Your task to perform on an android device: turn notification dots off Image 0: 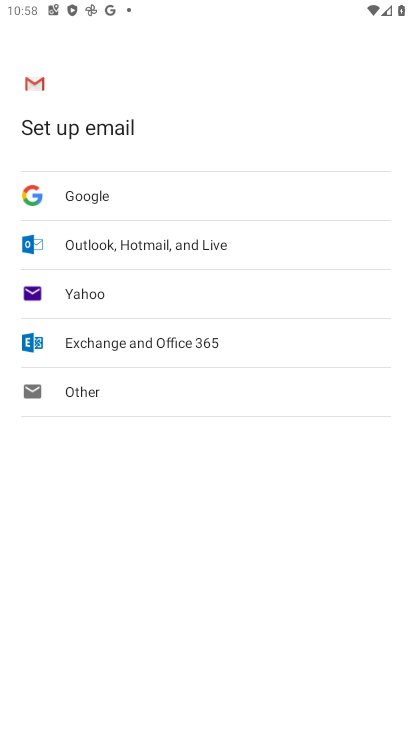
Step 0: press home button
Your task to perform on an android device: turn notification dots off Image 1: 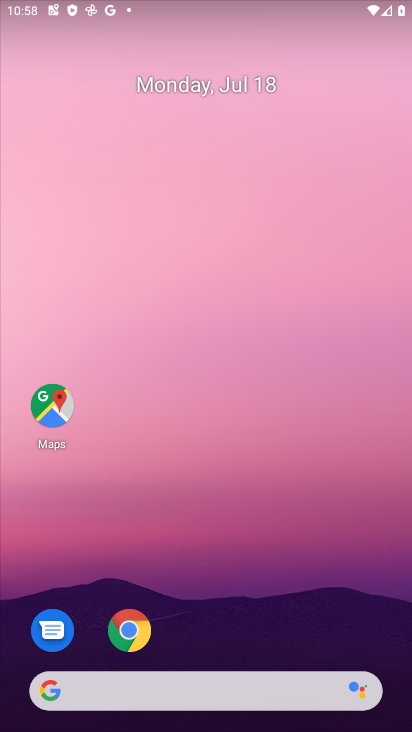
Step 1: drag from (389, 668) to (225, 137)
Your task to perform on an android device: turn notification dots off Image 2: 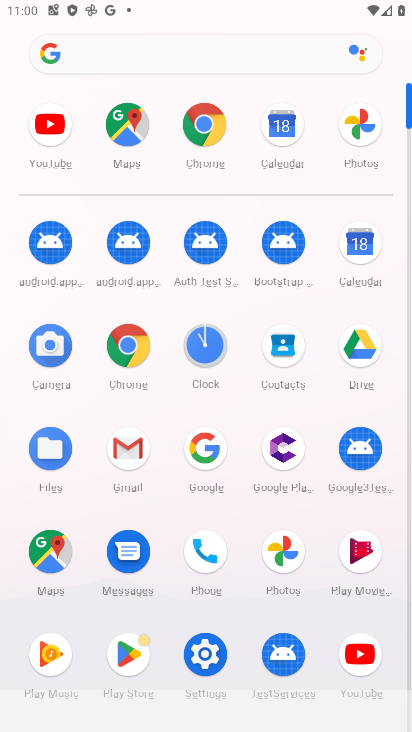
Step 2: click (185, 646)
Your task to perform on an android device: turn notification dots off Image 3: 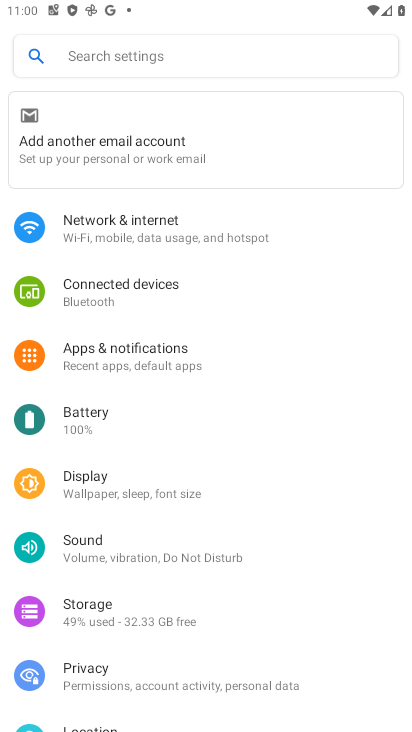
Step 3: click (171, 351)
Your task to perform on an android device: turn notification dots off Image 4: 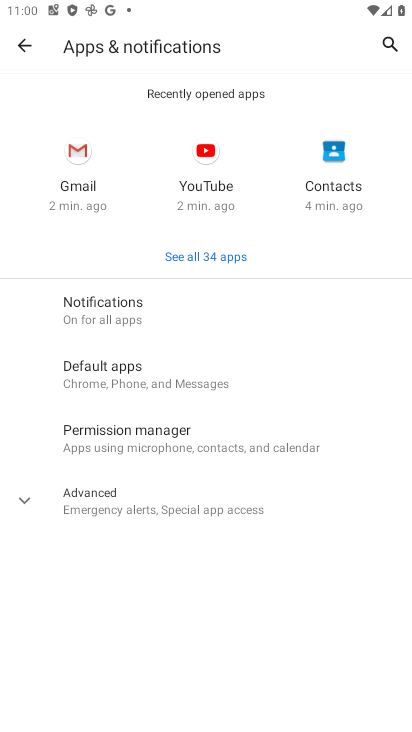
Step 4: click (162, 301)
Your task to perform on an android device: turn notification dots off Image 5: 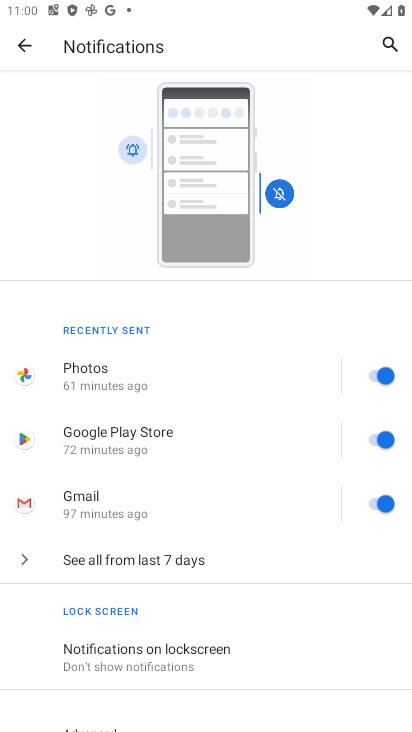
Step 5: drag from (190, 662) to (209, 153)
Your task to perform on an android device: turn notification dots off Image 6: 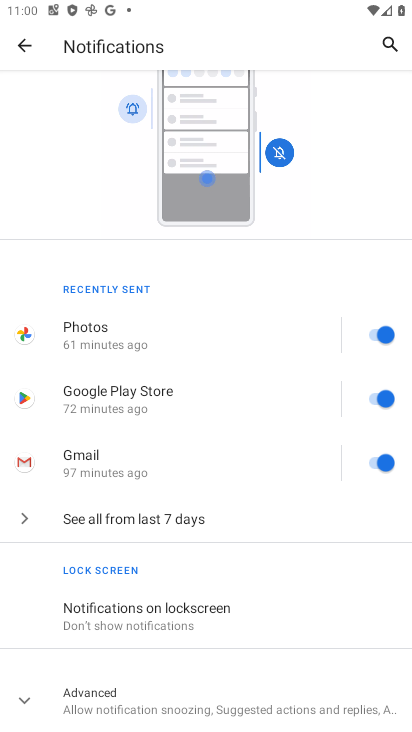
Step 6: click (100, 696)
Your task to perform on an android device: turn notification dots off Image 7: 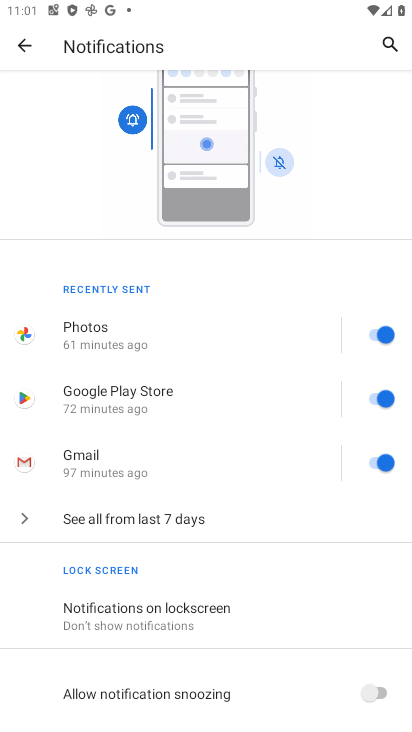
Step 7: drag from (147, 691) to (207, 139)
Your task to perform on an android device: turn notification dots off Image 8: 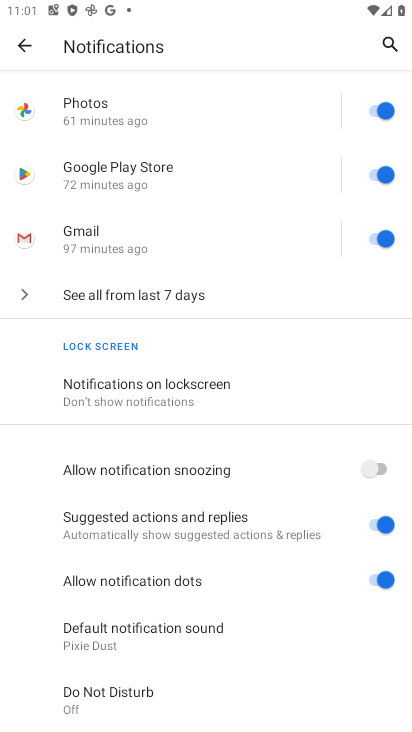
Step 8: click (343, 580)
Your task to perform on an android device: turn notification dots off Image 9: 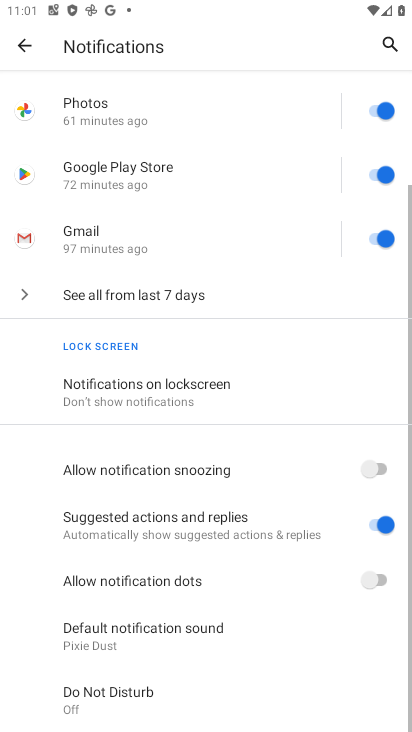
Step 9: task complete